Your task to perform on an android device: show emergency info Image 0: 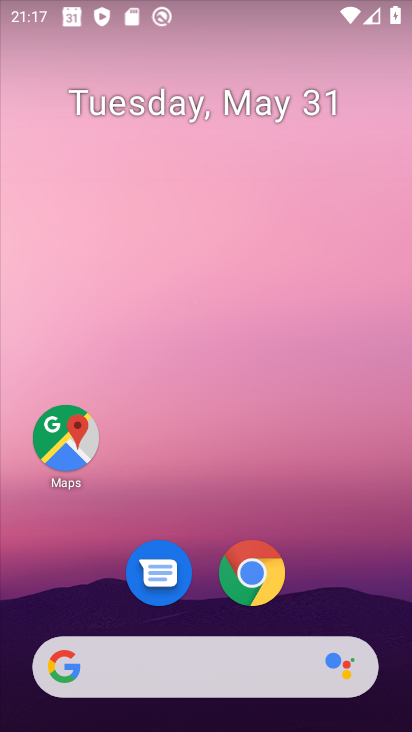
Step 0: drag from (364, 593) to (289, 240)
Your task to perform on an android device: show emergency info Image 1: 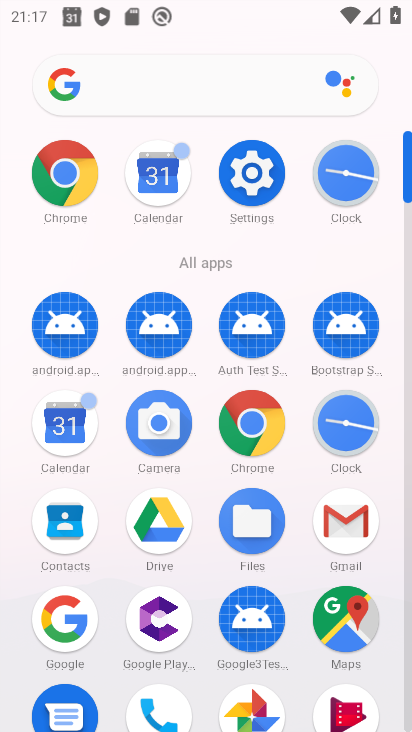
Step 1: click (253, 181)
Your task to perform on an android device: show emergency info Image 2: 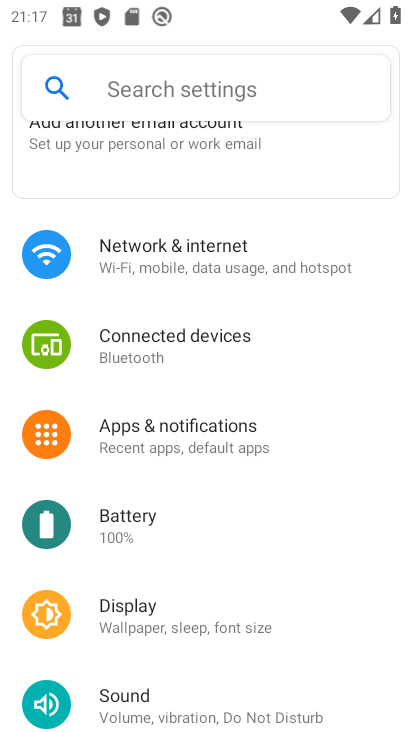
Step 2: drag from (260, 498) to (329, 109)
Your task to perform on an android device: show emergency info Image 3: 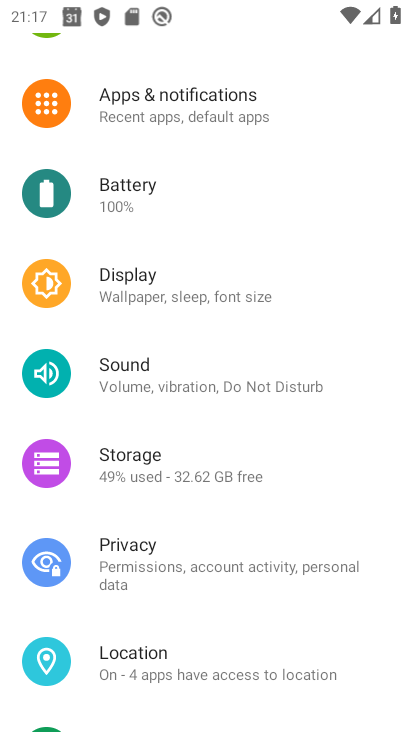
Step 3: drag from (213, 487) to (250, 92)
Your task to perform on an android device: show emergency info Image 4: 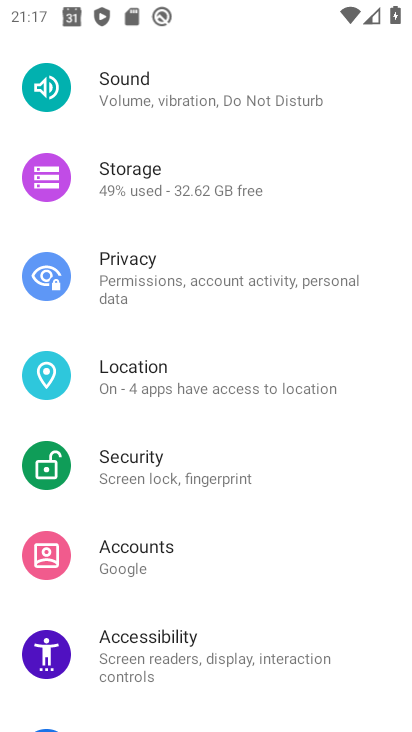
Step 4: drag from (164, 581) to (241, 170)
Your task to perform on an android device: show emergency info Image 5: 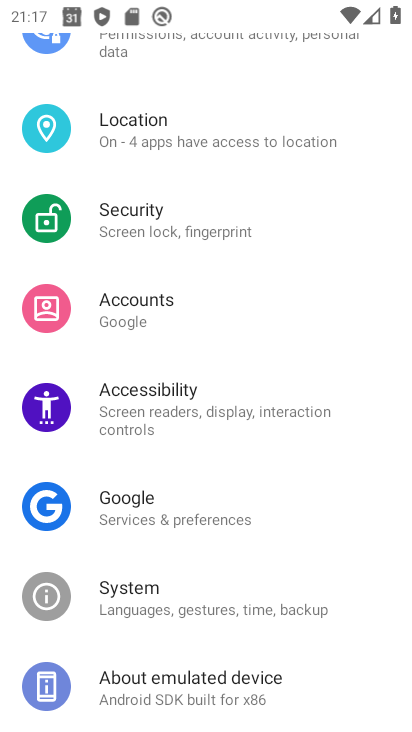
Step 5: drag from (199, 465) to (254, 166)
Your task to perform on an android device: show emergency info Image 6: 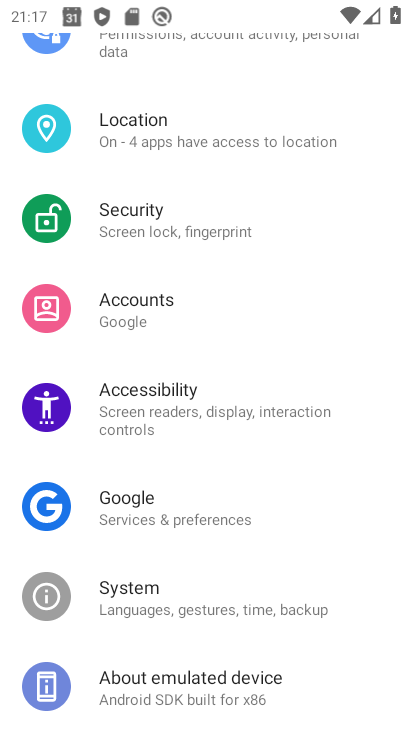
Step 6: click (165, 681)
Your task to perform on an android device: show emergency info Image 7: 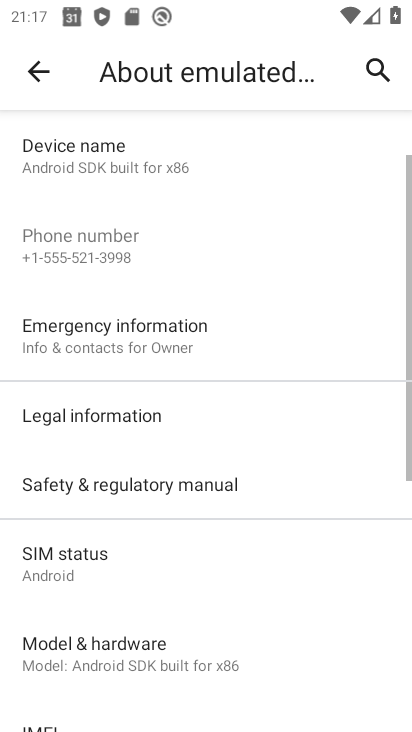
Step 7: click (156, 323)
Your task to perform on an android device: show emergency info Image 8: 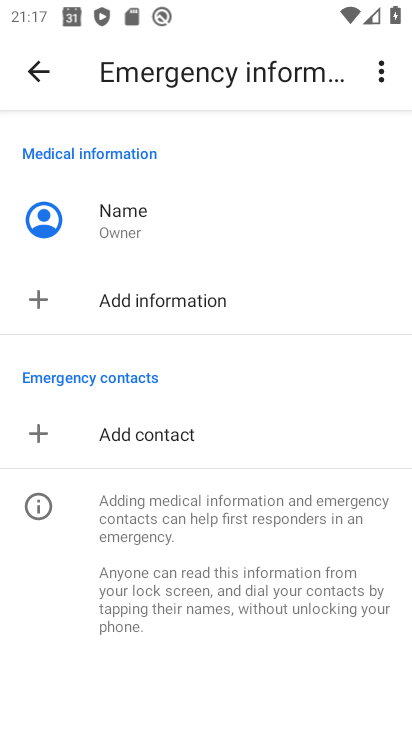
Step 8: task complete